Your task to perform on an android device: Add rayovac triple a to the cart on target Image 0: 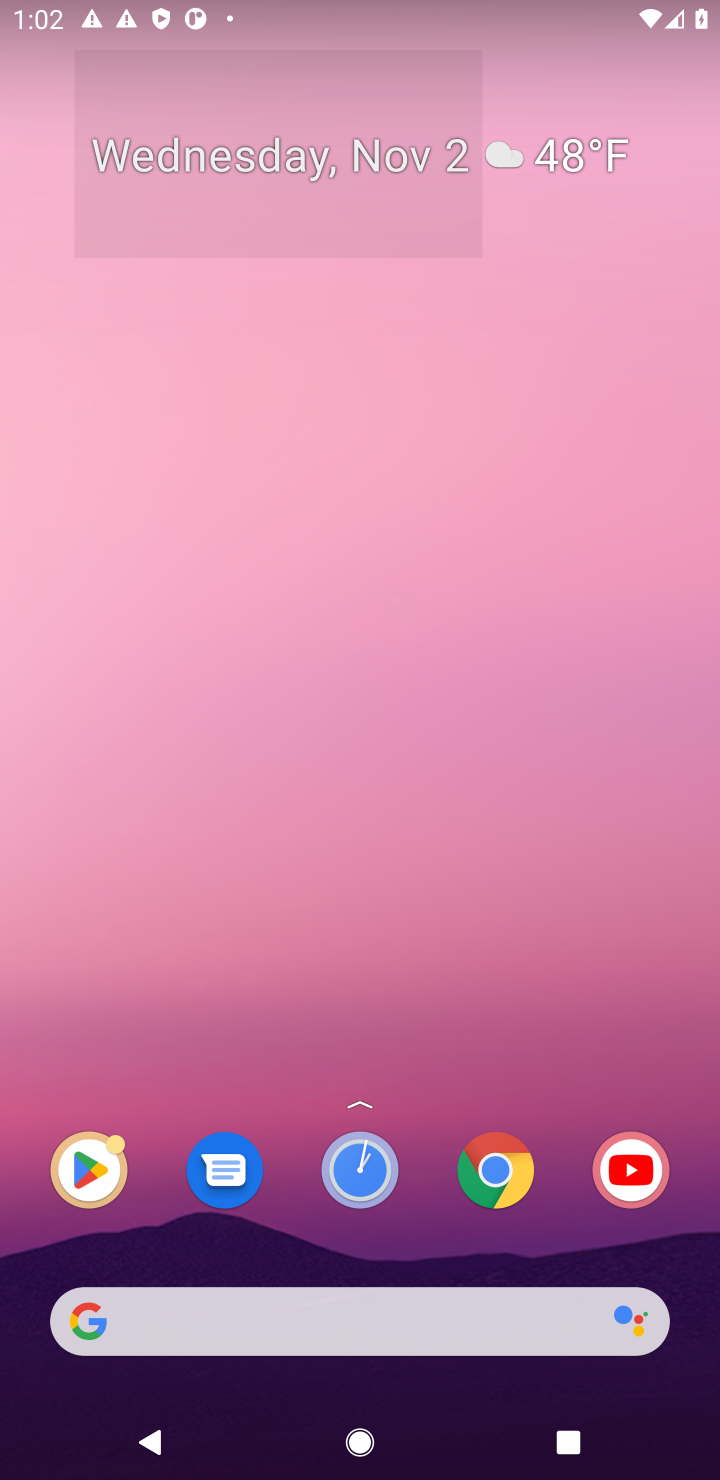
Step 0: drag from (420, 1175) to (335, 480)
Your task to perform on an android device: Add rayovac triple a to the cart on target Image 1: 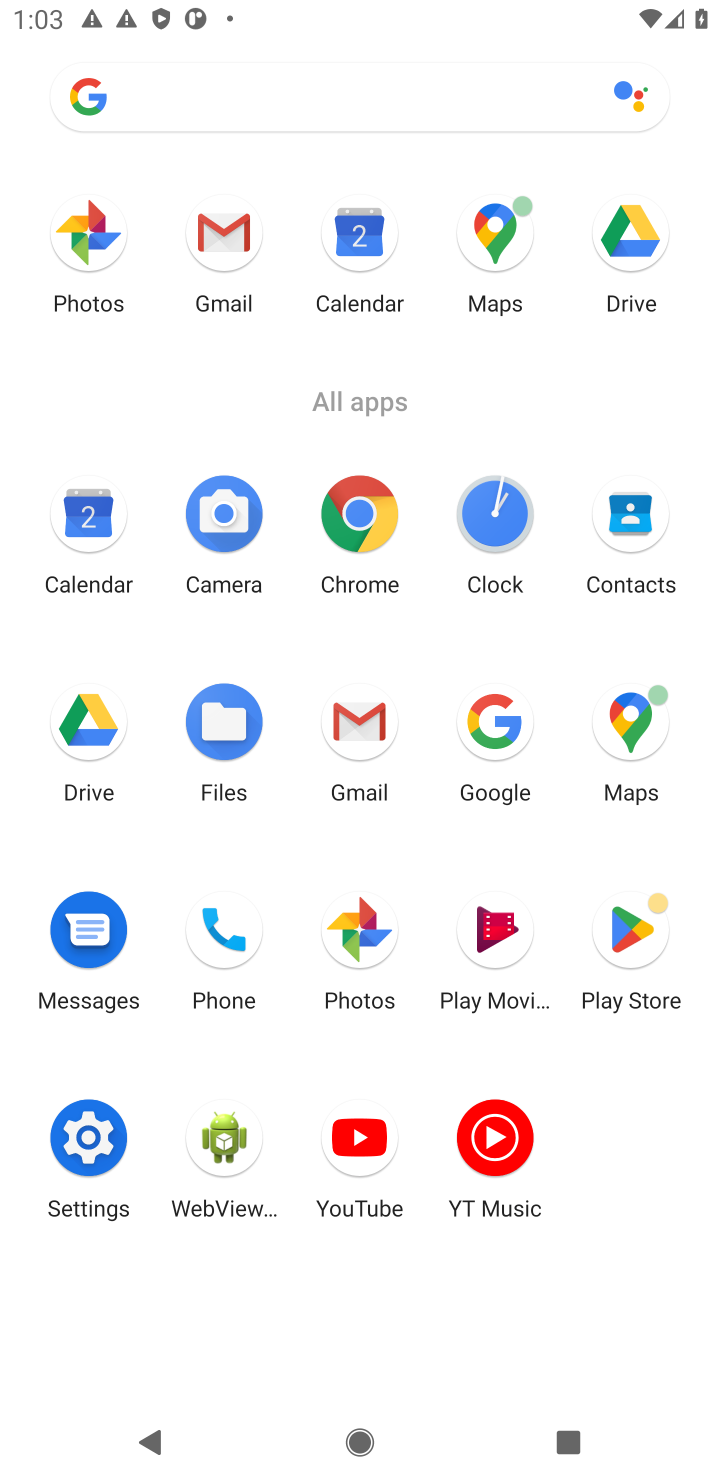
Step 1: click (515, 766)
Your task to perform on an android device: Add rayovac triple a to the cart on target Image 2: 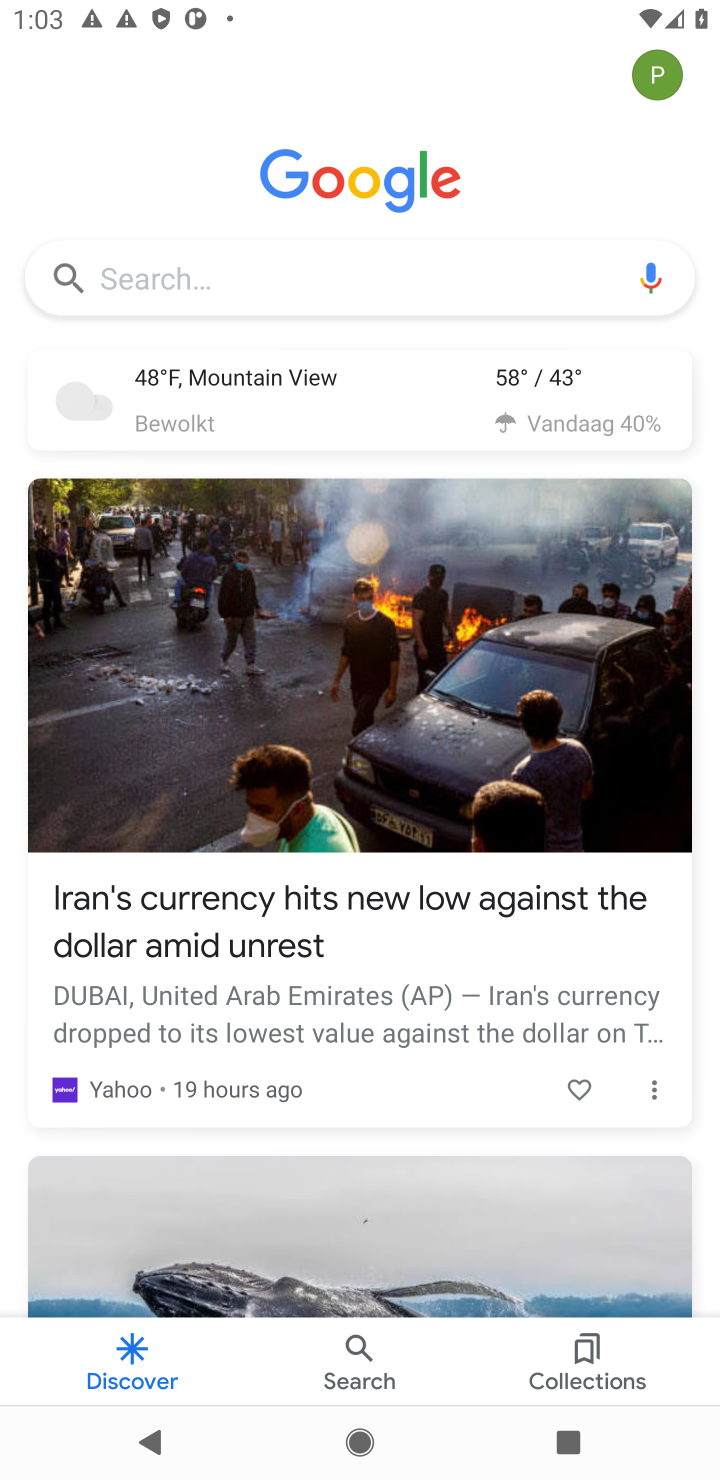
Step 2: click (687, 807)
Your task to perform on an android device: Add rayovac triple a to the cart on target Image 3: 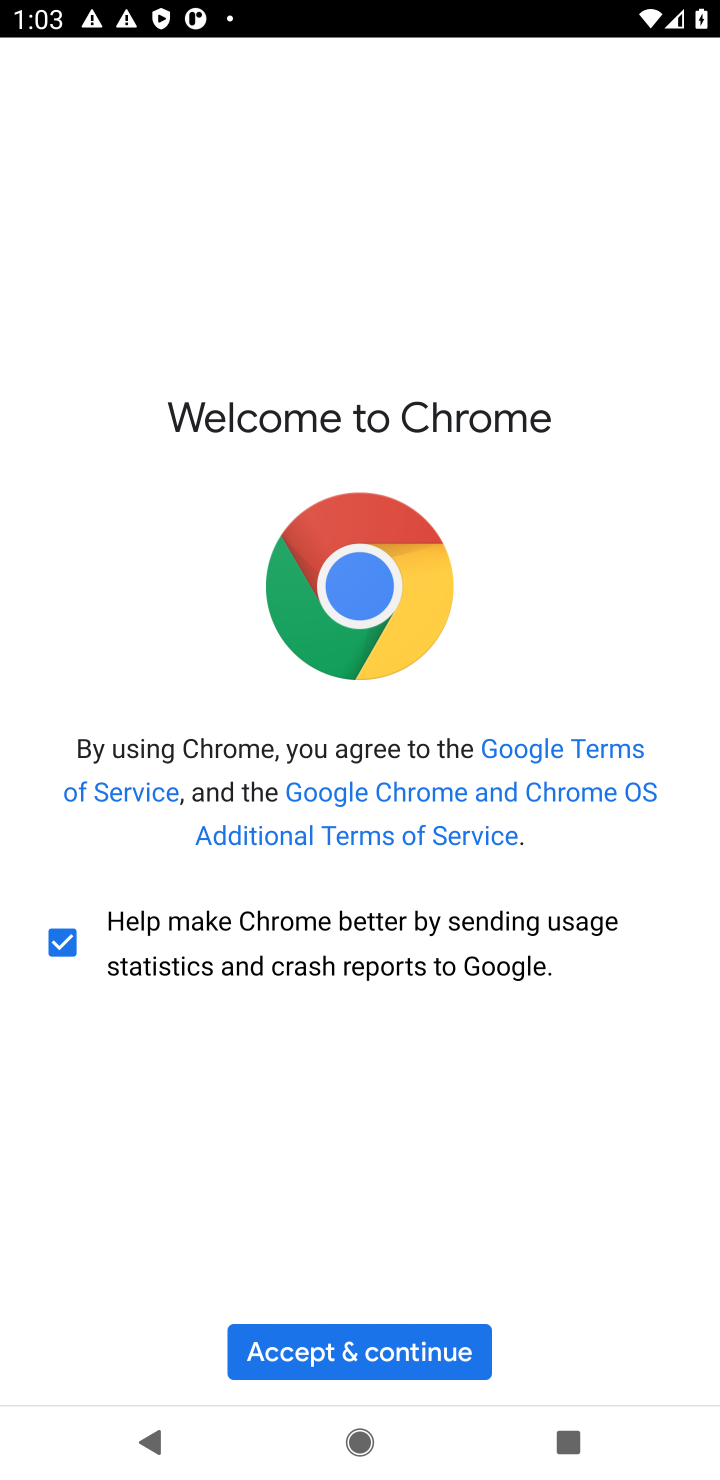
Step 3: click (431, 1354)
Your task to perform on an android device: Add rayovac triple a to the cart on target Image 4: 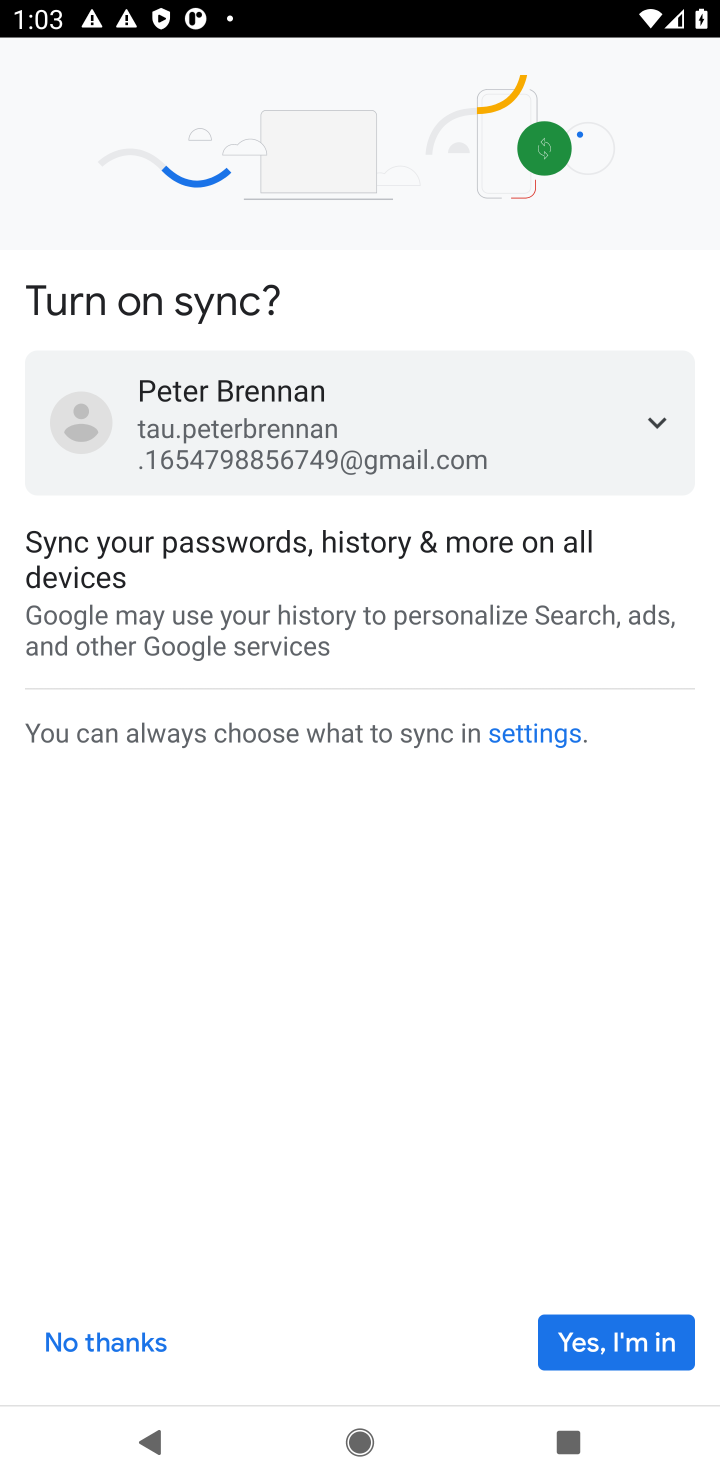
Step 4: click (599, 1343)
Your task to perform on an android device: Add rayovac triple a to the cart on target Image 5: 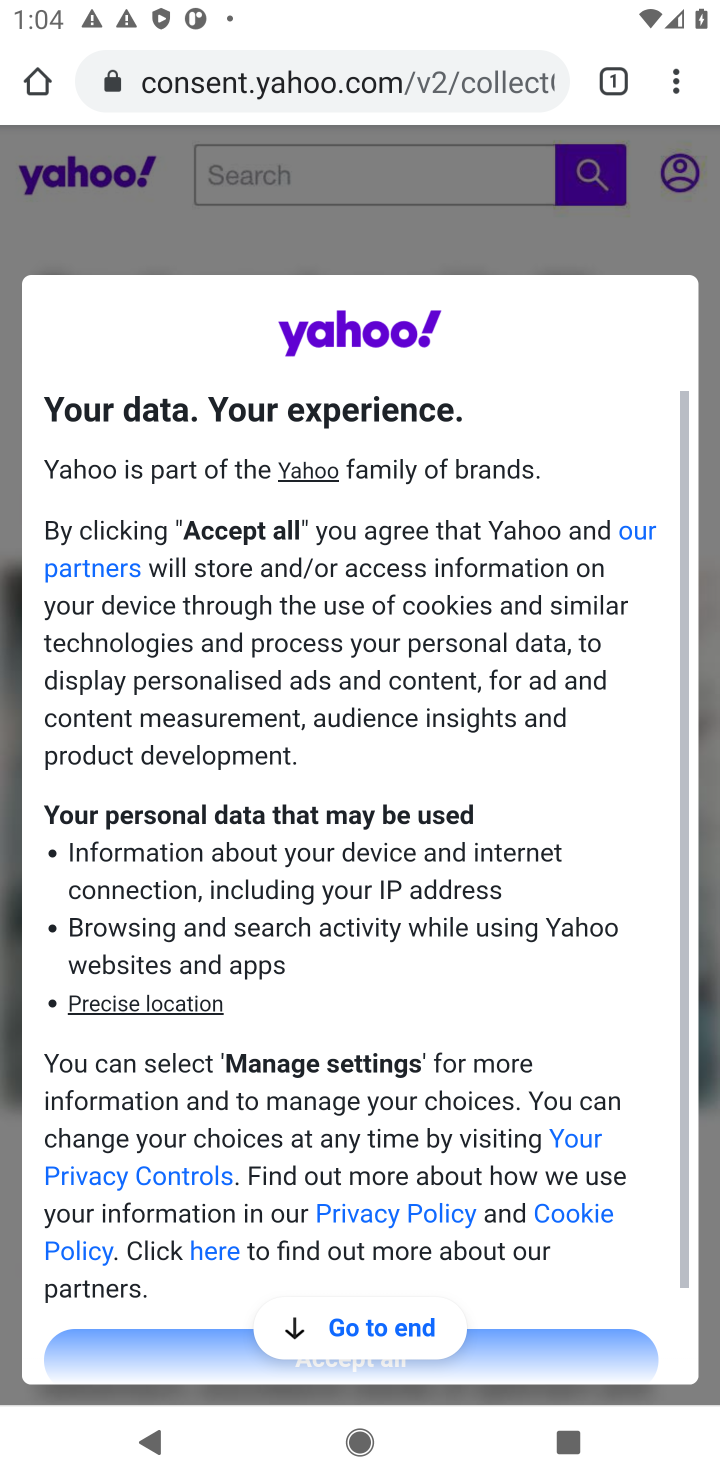
Step 5: click (382, 72)
Your task to perform on an android device: Add rayovac triple a to the cart on target Image 6: 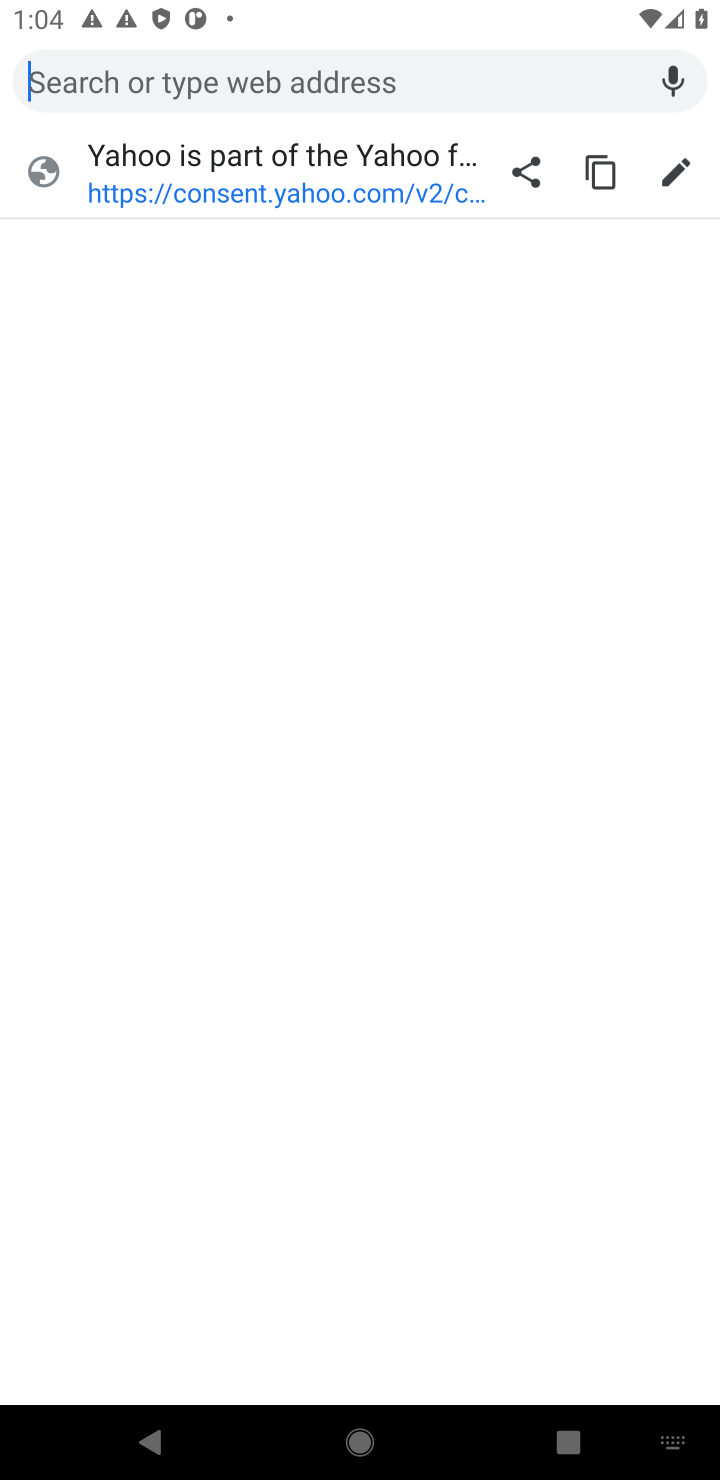
Step 6: type "target"
Your task to perform on an android device: Add rayovac triple a to the cart on target Image 7: 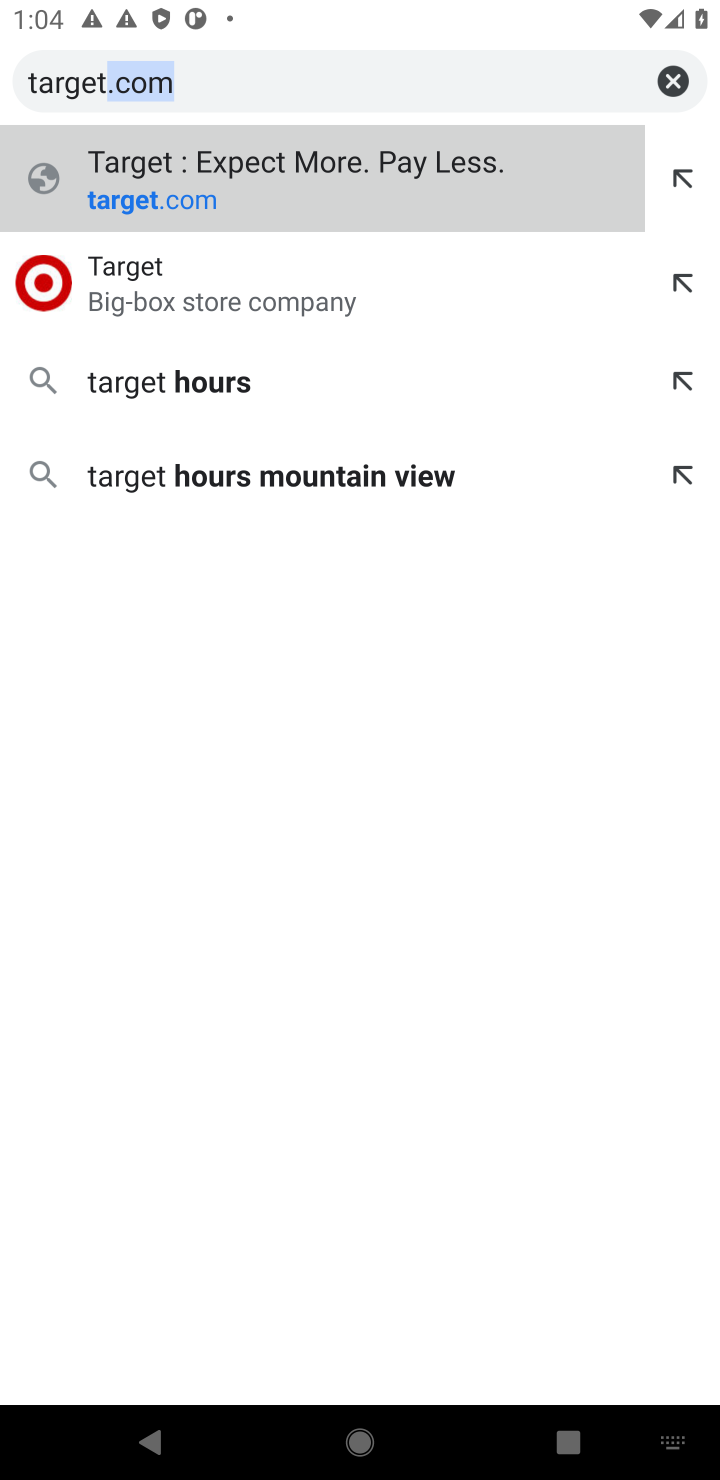
Step 7: click (432, 188)
Your task to perform on an android device: Add rayovac triple a to the cart on target Image 8: 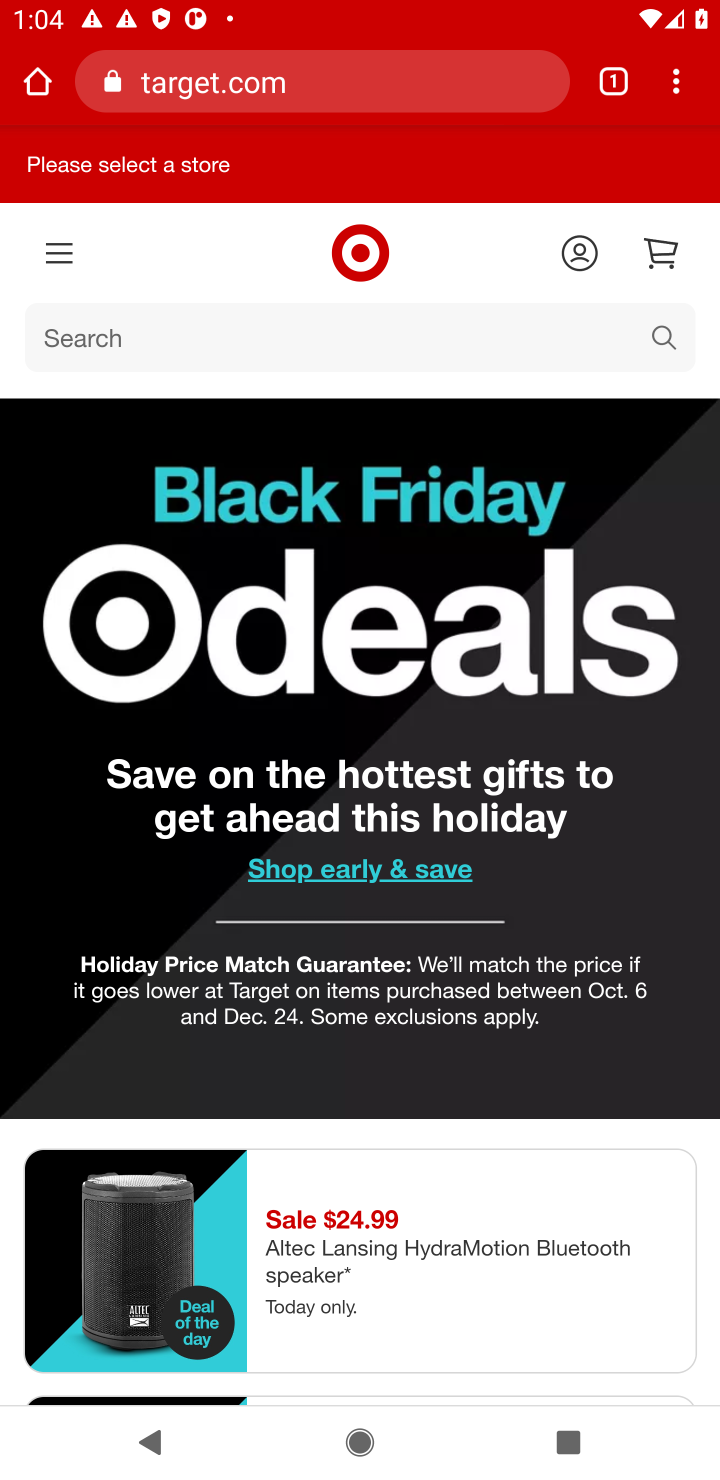
Step 8: click (349, 358)
Your task to perform on an android device: Add rayovac triple a to the cart on target Image 9: 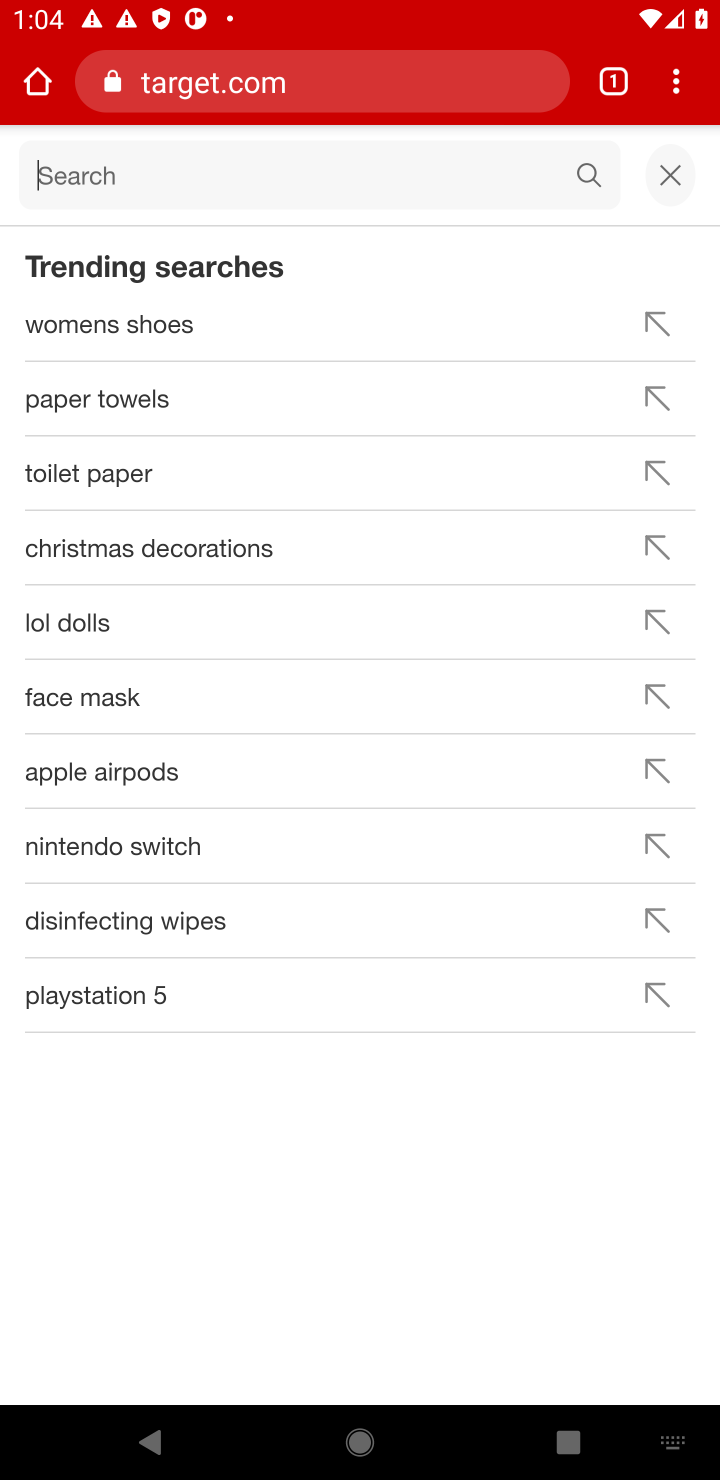
Step 9: type "rayovac triple"
Your task to perform on an android device: Add rayovac triple a to the cart on target Image 10: 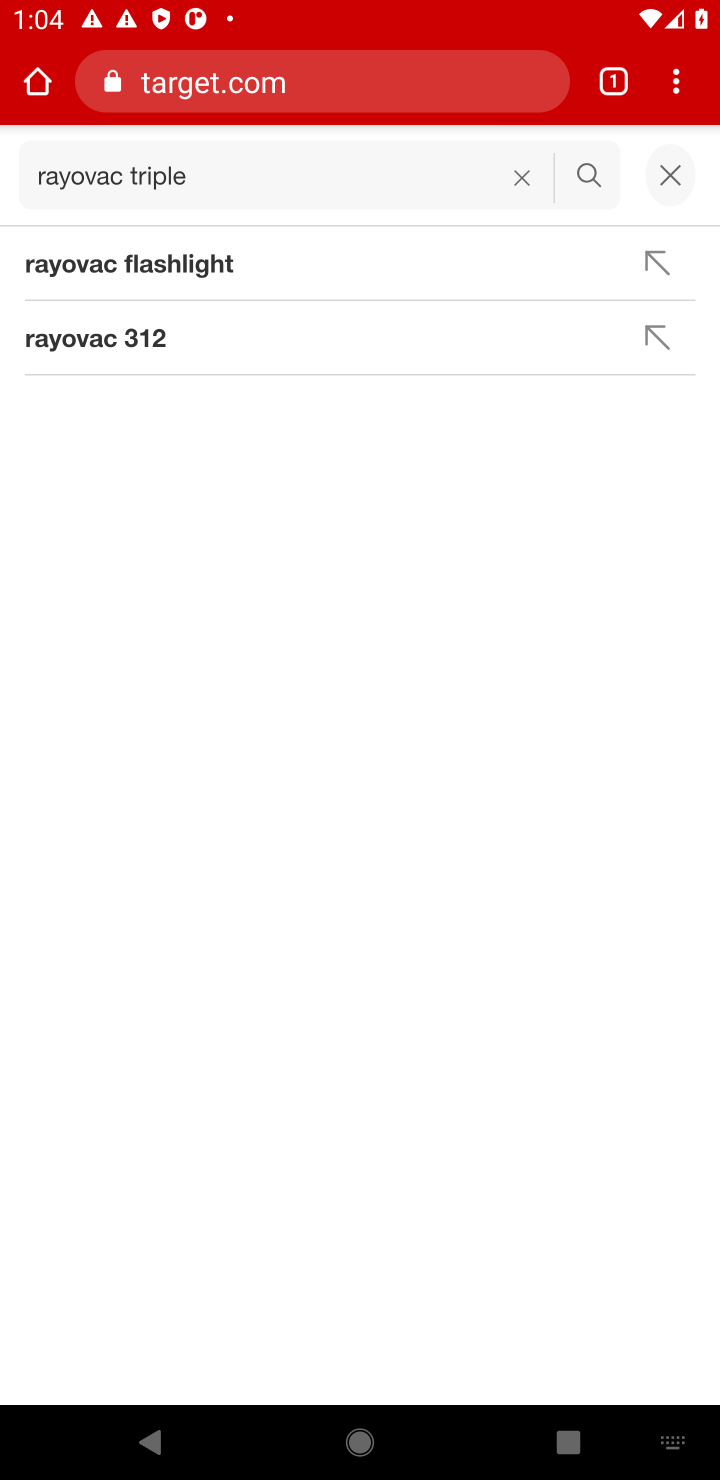
Step 10: click (599, 176)
Your task to perform on an android device: Add rayovac triple a to the cart on target Image 11: 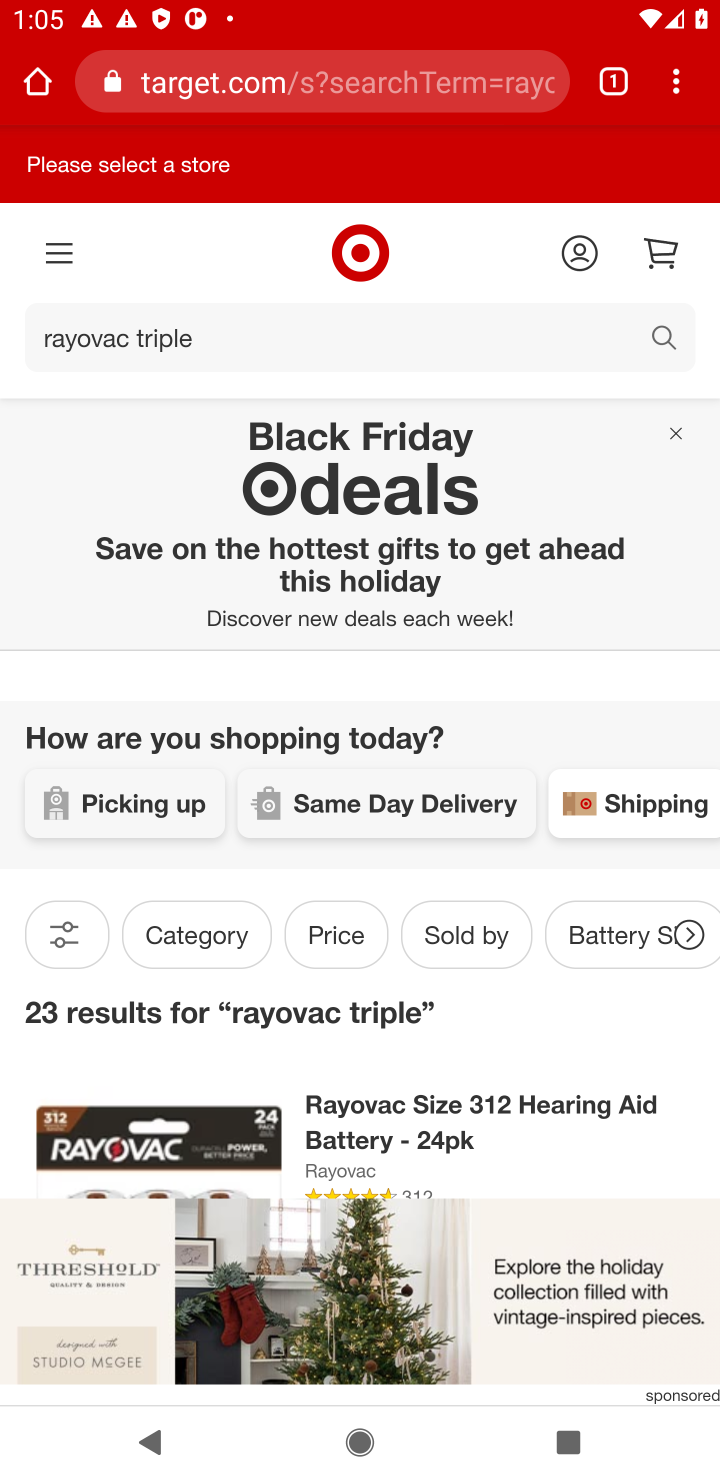
Step 11: task complete